Your task to perform on an android device: Open the calendar app, open the side menu, and click the "Day" option Image 0: 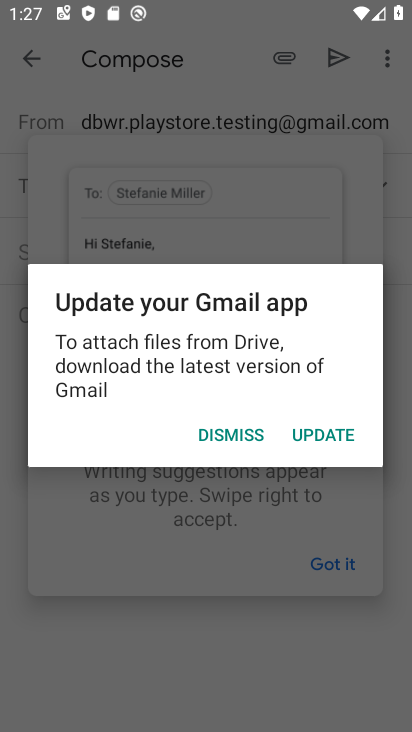
Step 0: press home button
Your task to perform on an android device: Open the calendar app, open the side menu, and click the "Day" option Image 1: 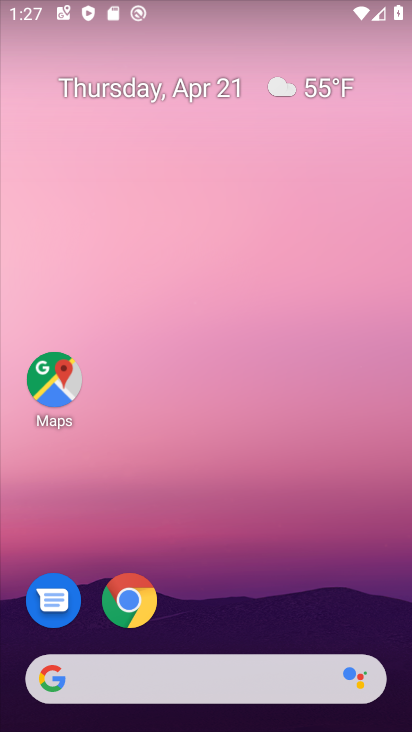
Step 1: drag from (287, 584) to (279, 52)
Your task to perform on an android device: Open the calendar app, open the side menu, and click the "Day" option Image 2: 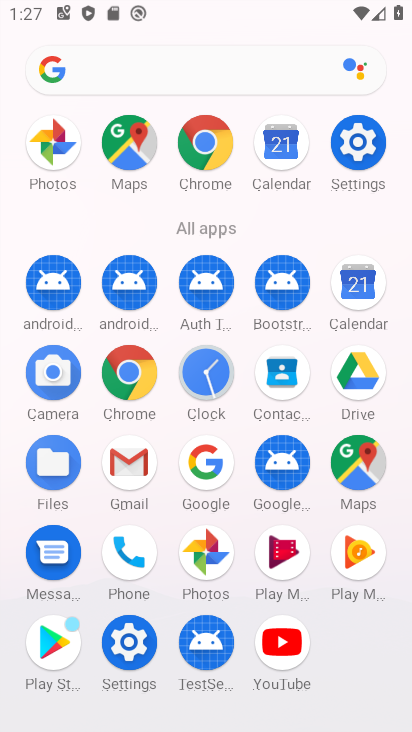
Step 2: click (371, 284)
Your task to perform on an android device: Open the calendar app, open the side menu, and click the "Day" option Image 3: 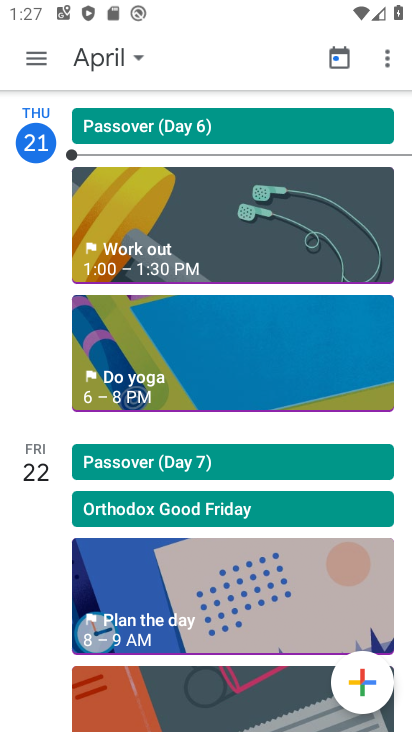
Step 3: click (28, 64)
Your task to perform on an android device: Open the calendar app, open the side menu, and click the "Day" option Image 4: 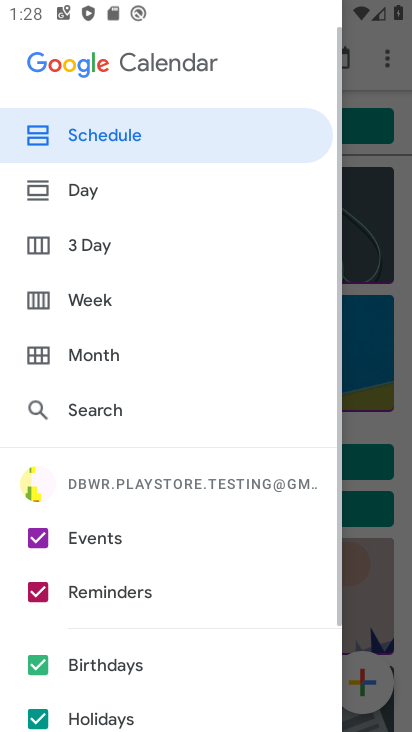
Step 4: click (64, 198)
Your task to perform on an android device: Open the calendar app, open the side menu, and click the "Day" option Image 5: 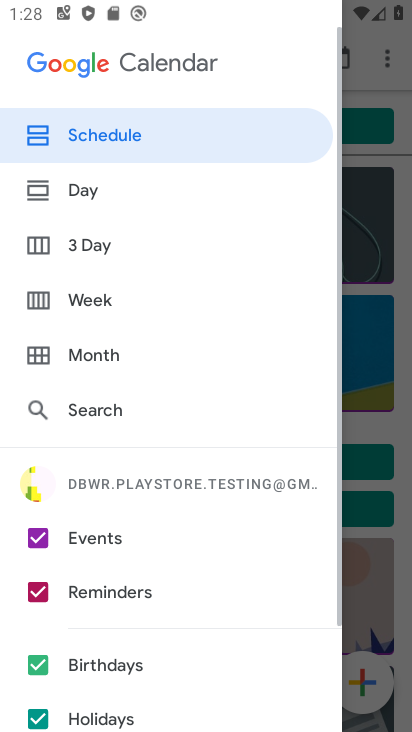
Step 5: click (81, 196)
Your task to perform on an android device: Open the calendar app, open the side menu, and click the "Day" option Image 6: 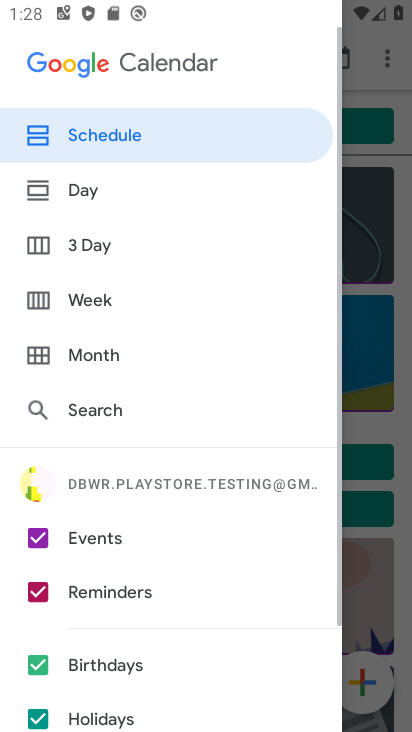
Step 6: click (86, 206)
Your task to perform on an android device: Open the calendar app, open the side menu, and click the "Day" option Image 7: 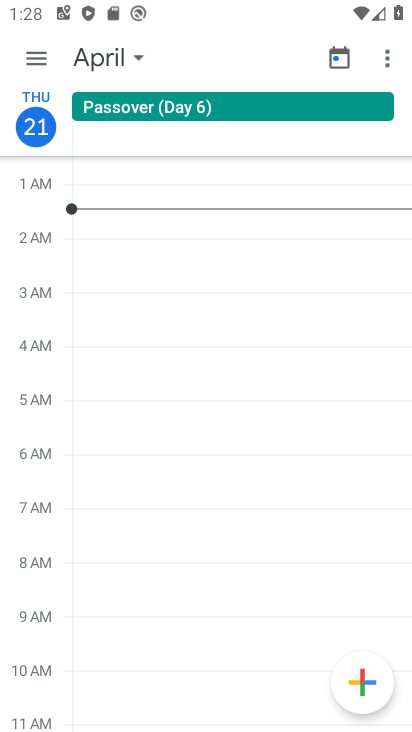
Step 7: task complete